Your task to perform on an android device: install app "Google Duo" Image 0: 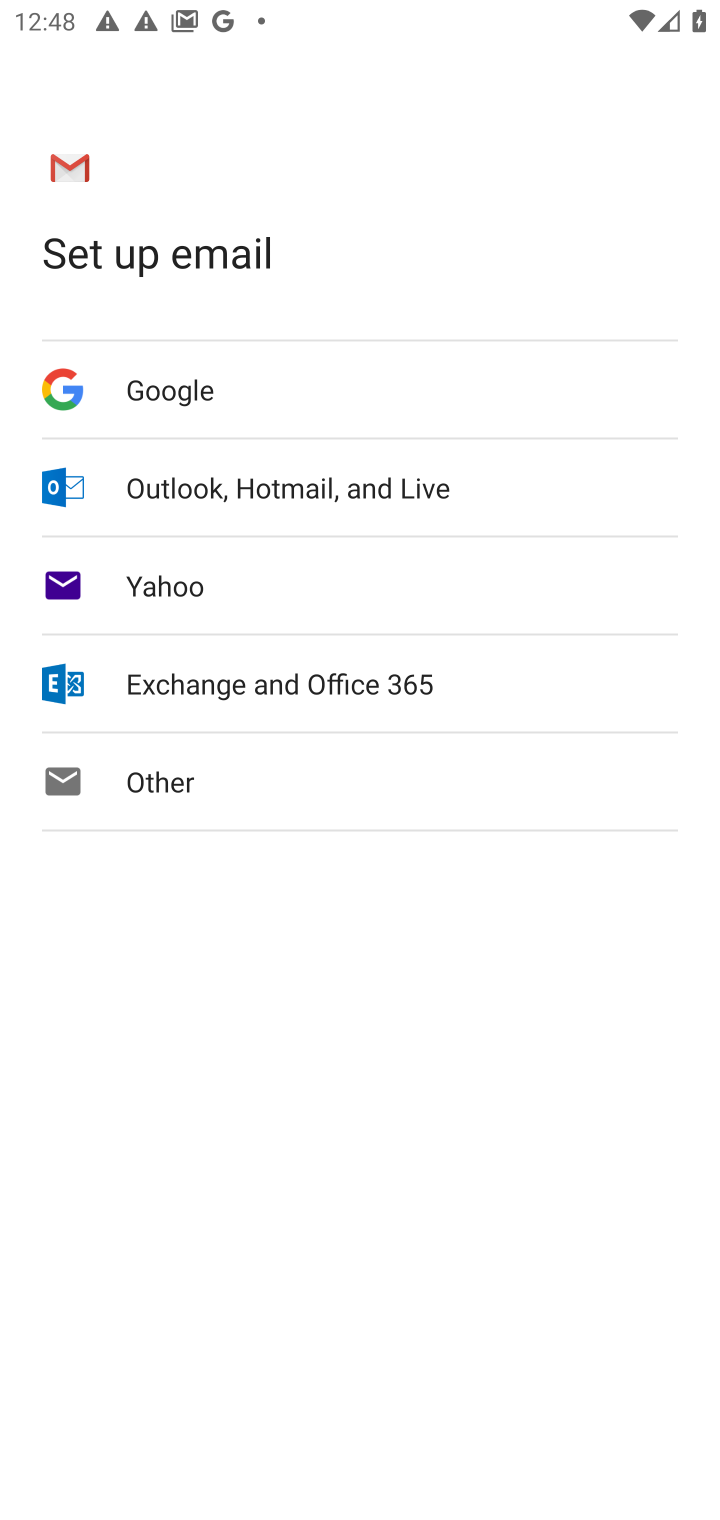
Step 0: press home button
Your task to perform on an android device: install app "Google Duo" Image 1: 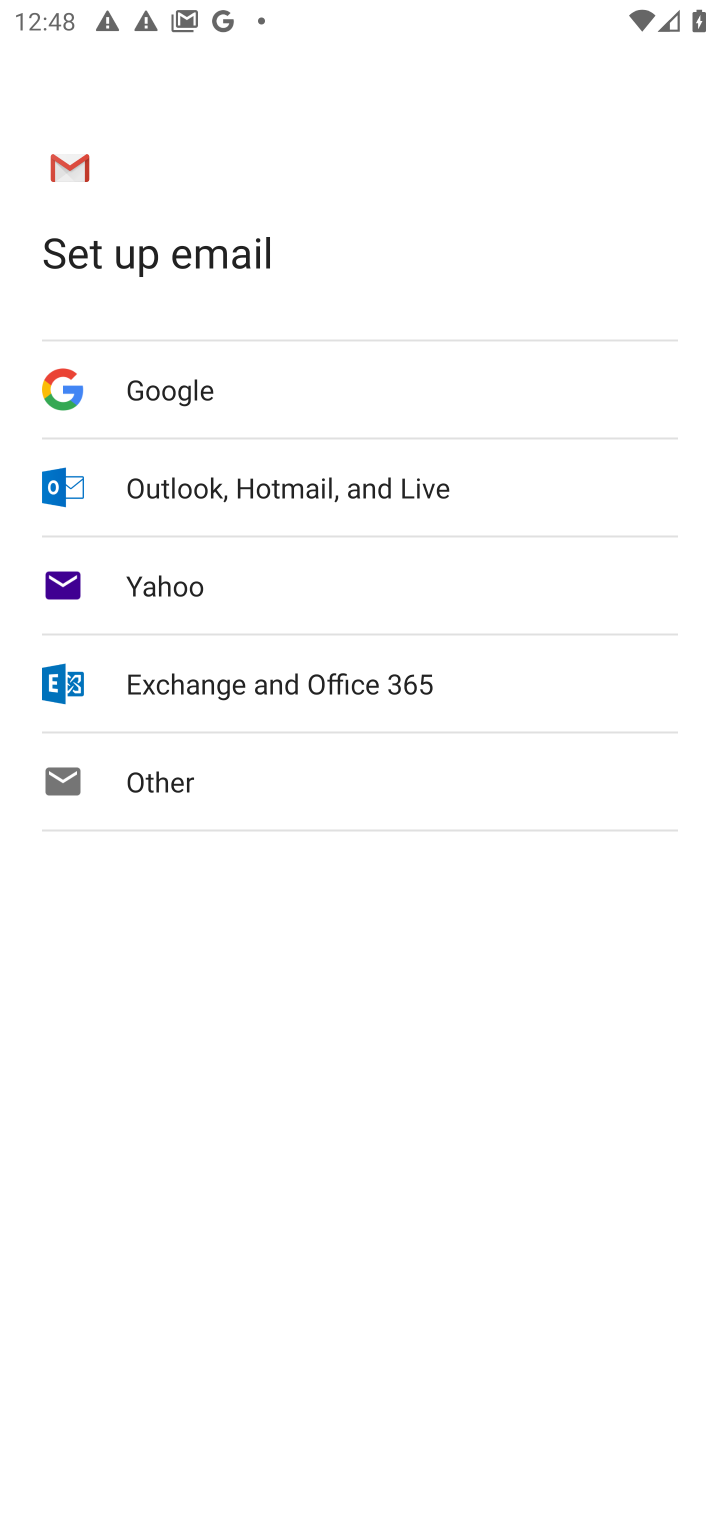
Step 1: press home button
Your task to perform on an android device: install app "Google Duo" Image 2: 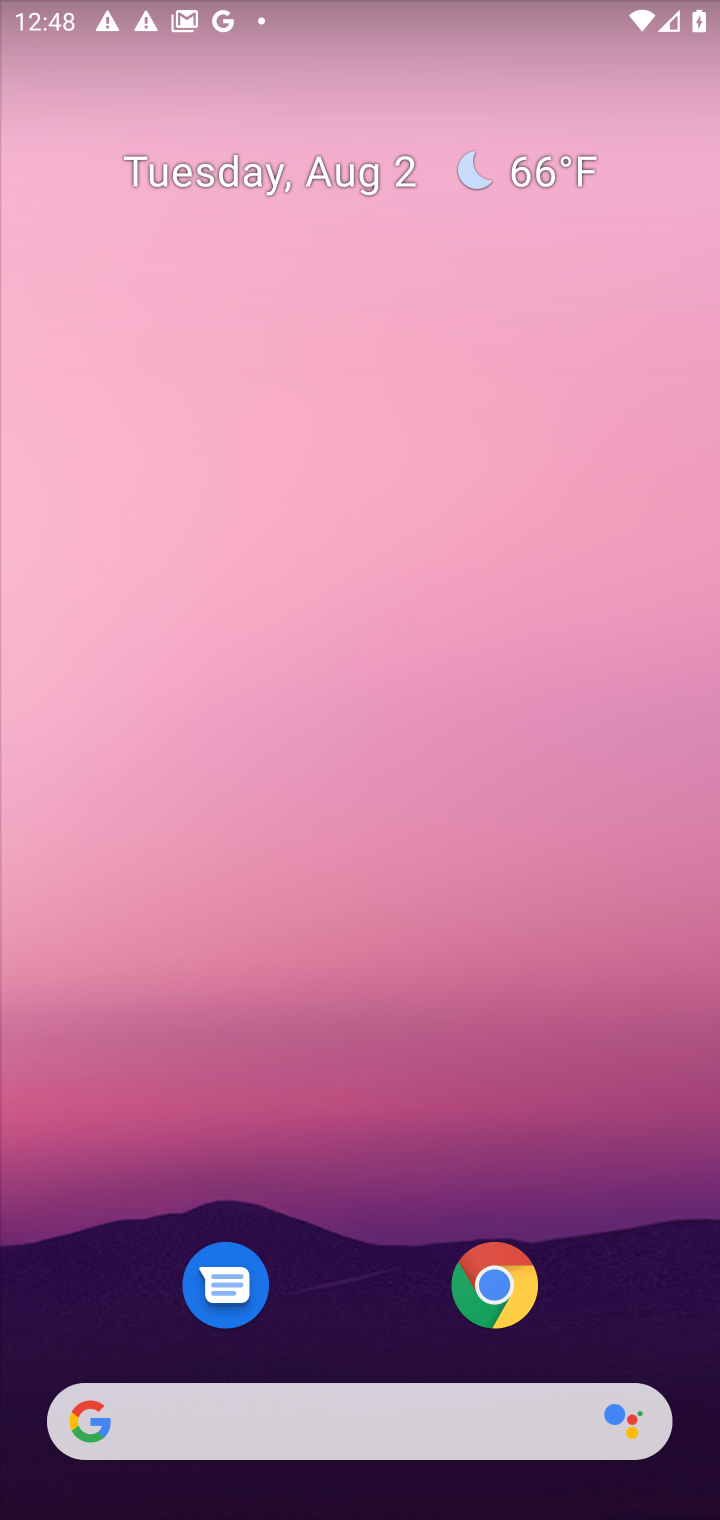
Step 2: drag from (398, 1162) to (329, 110)
Your task to perform on an android device: install app "Google Duo" Image 3: 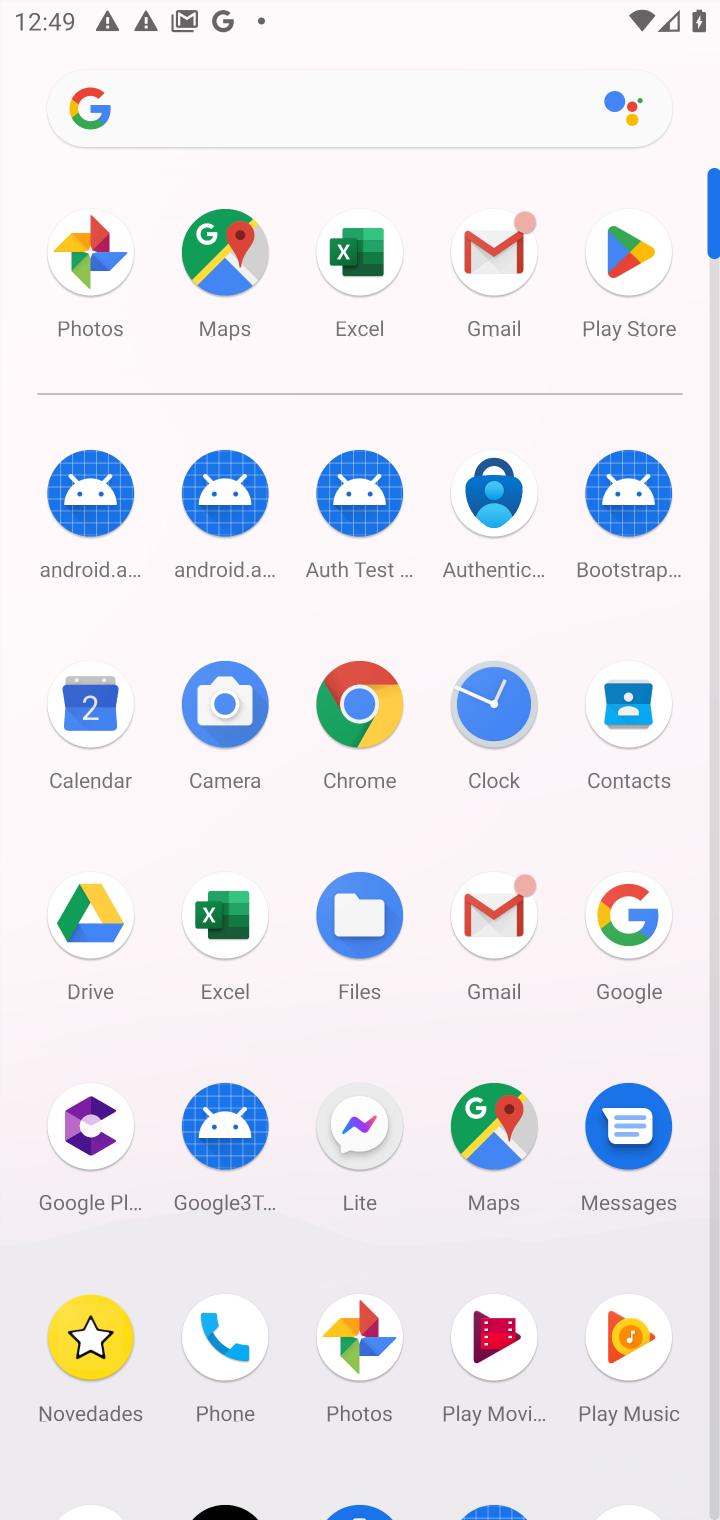
Step 3: drag from (423, 1259) to (451, 477)
Your task to perform on an android device: install app "Google Duo" Image 4: 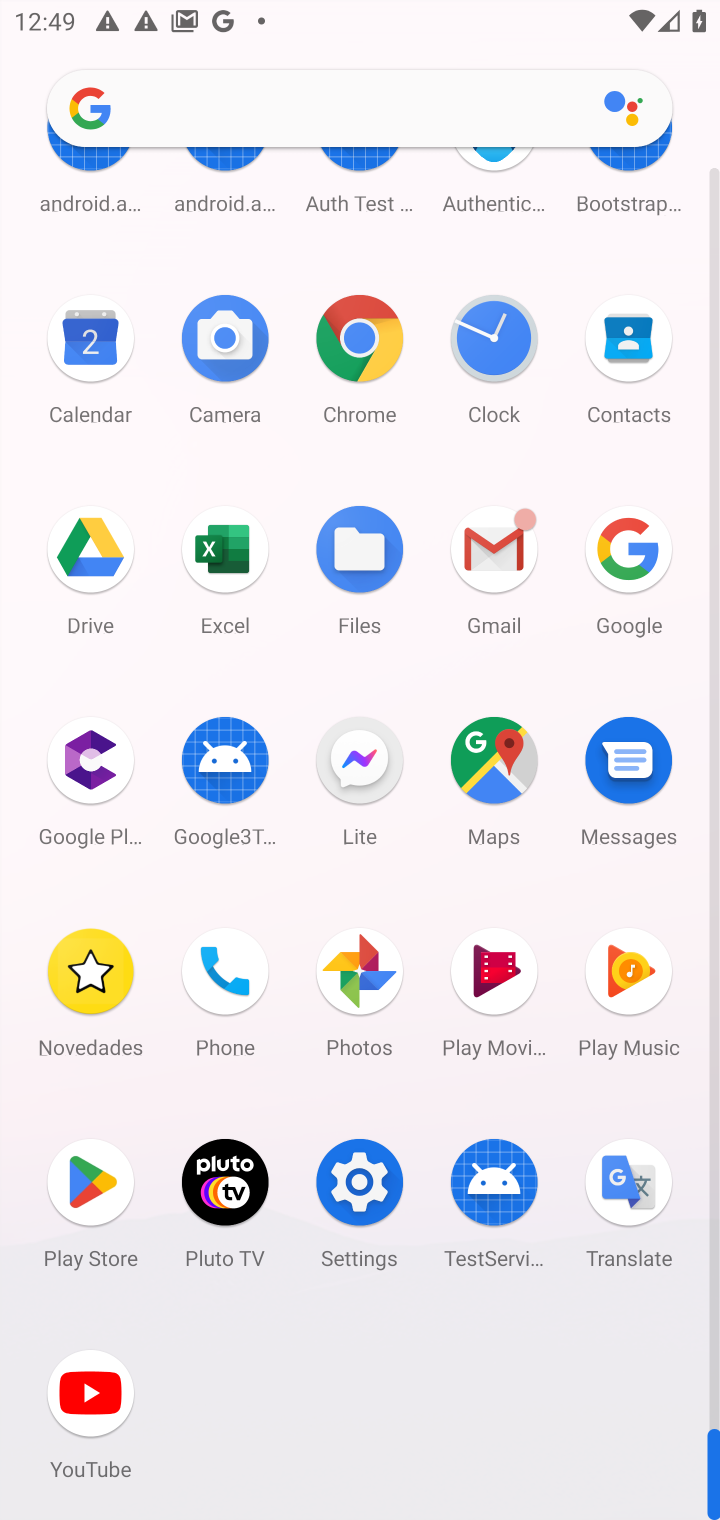
Step 4: click (74, 1193)
Your task to perform on an android device: install app "Google Duo" Image 5: 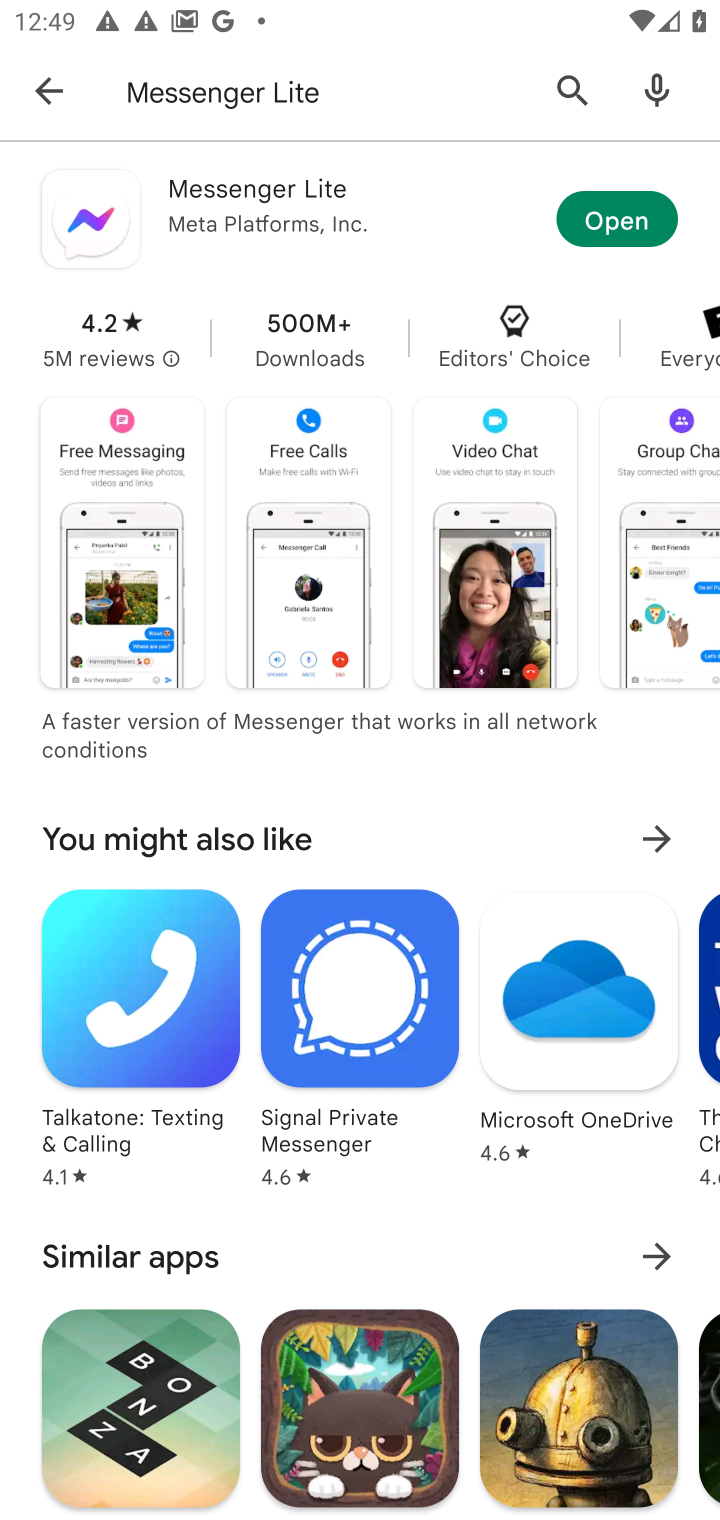
Step 5: click (358, 96)
Your task to perform on an android device: install app "Google Duo" Image 6: 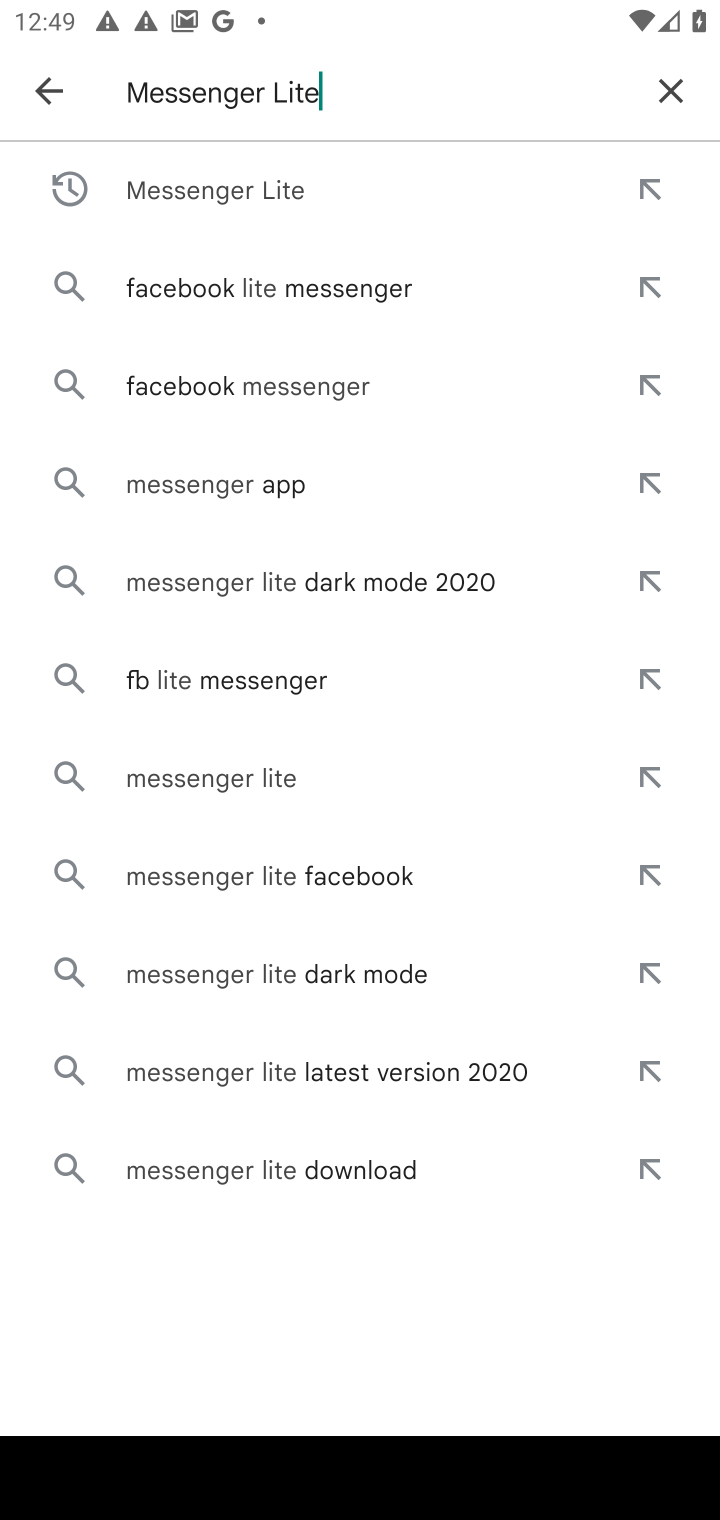
Step 6: click (676, 86)
Your task to perform on an android device: install app "Google Duo" Image 7: 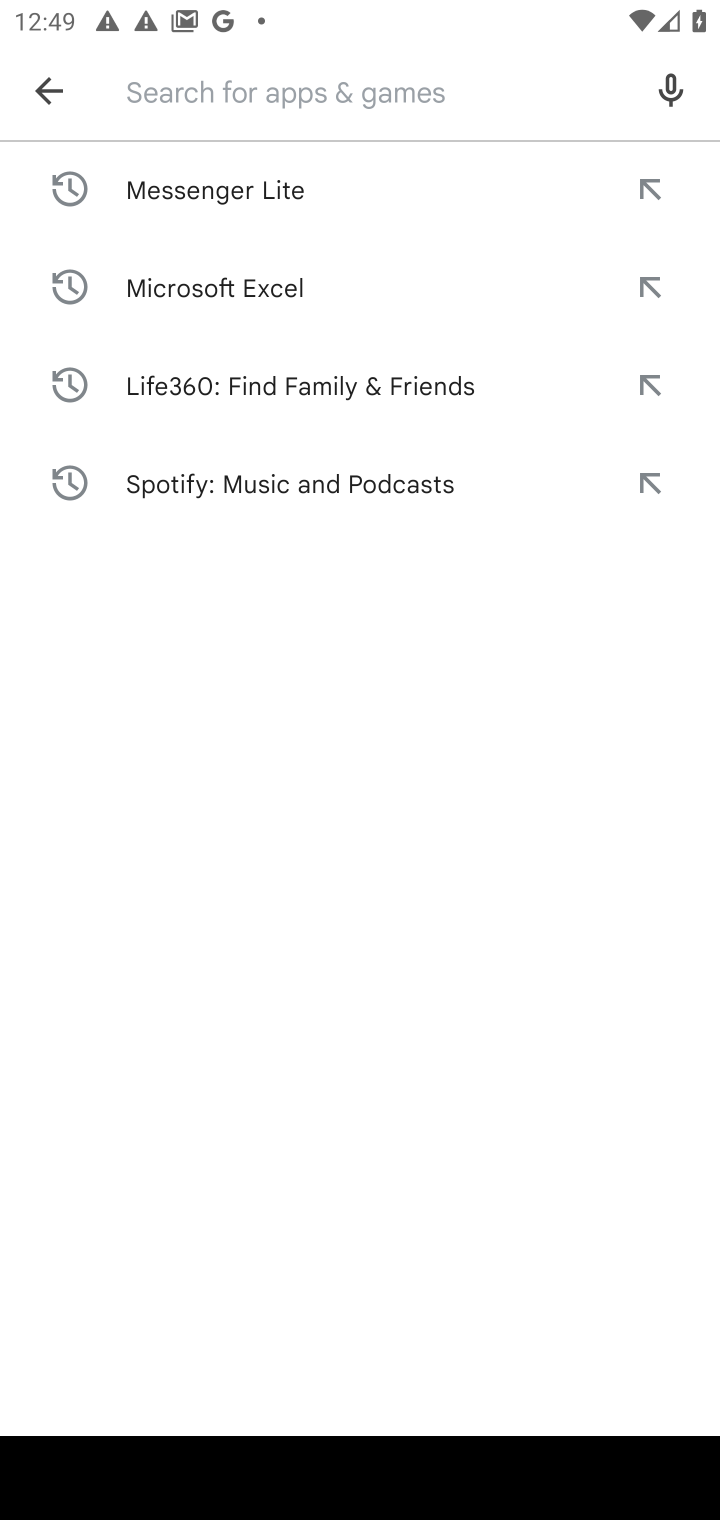
Step 7: type "Google Duo"
Your task to perform on an android device: install app "Google Duo" Image 8: 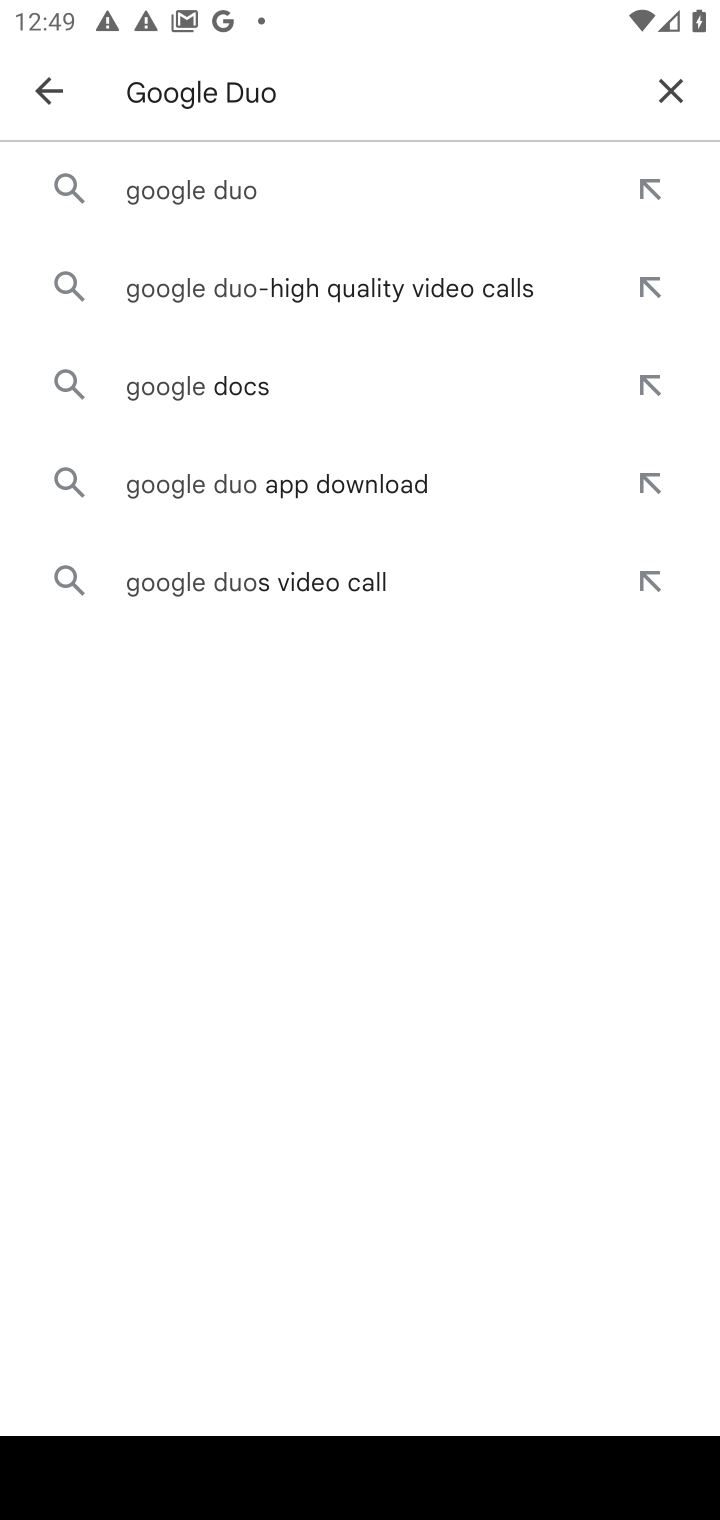
Step 8: press enter
Your task to perform on an android device: install app "Google Duo" Image 9: 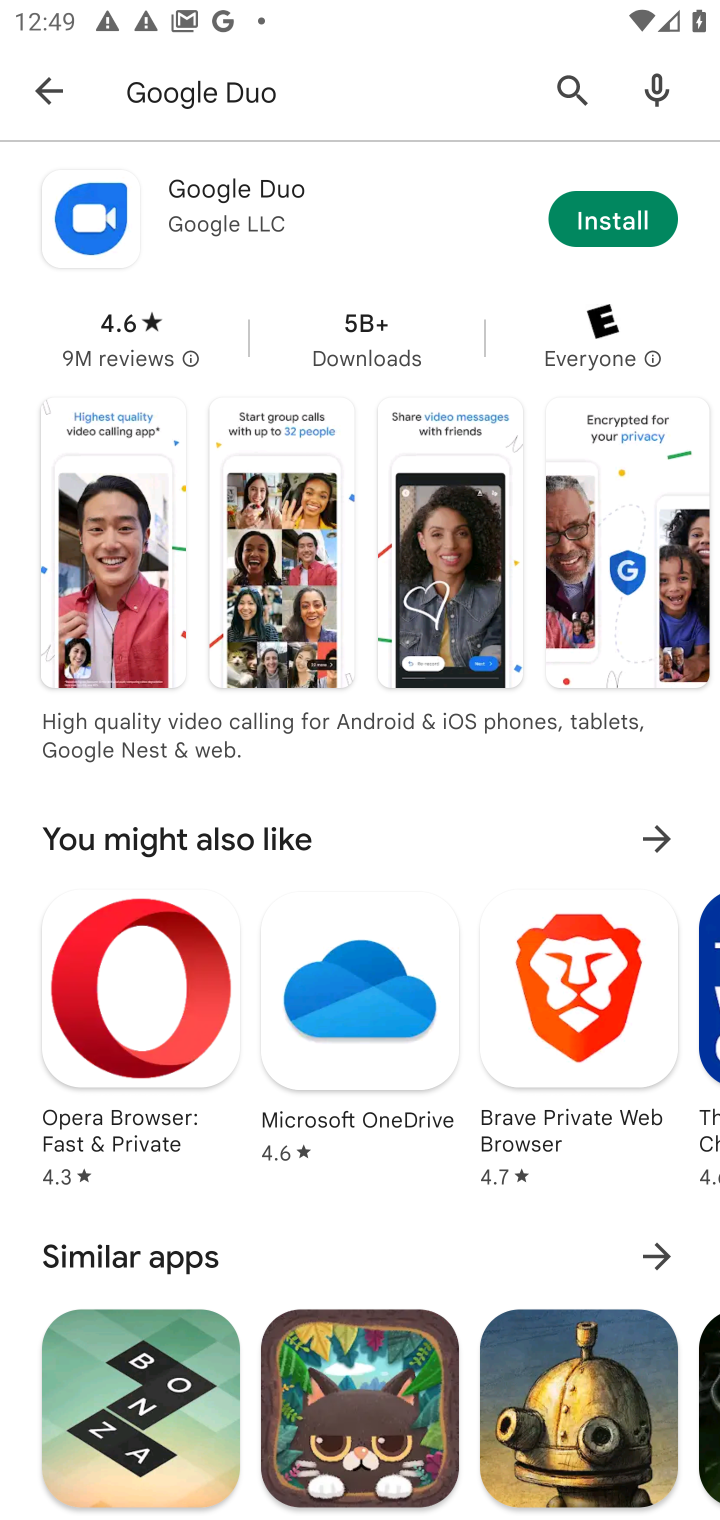
Step 9: click (633, 224)
Your task to perform on an android device: install app "Google Duo" Image 10: 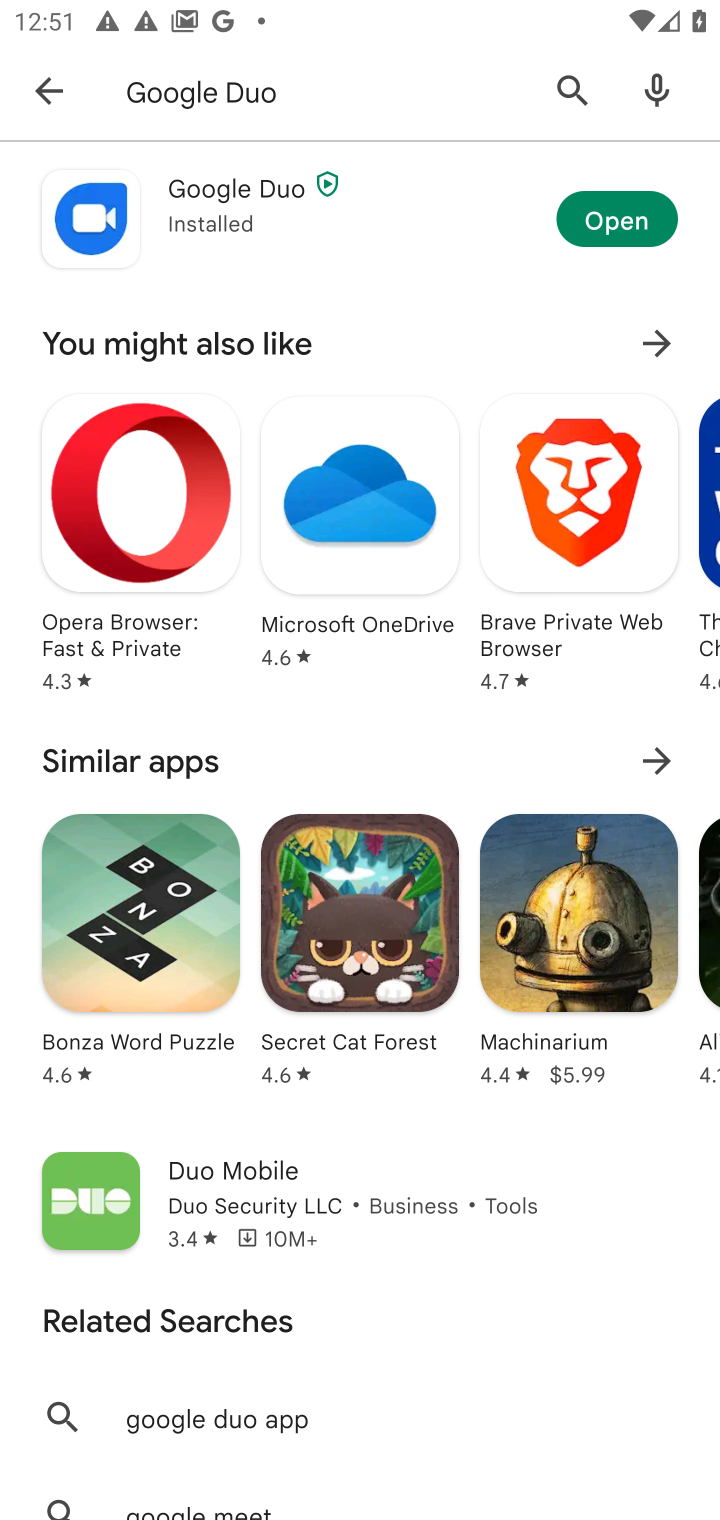
Step 10: task complete